Your task to perform on an android device: change the upload size in google photos Image 0: 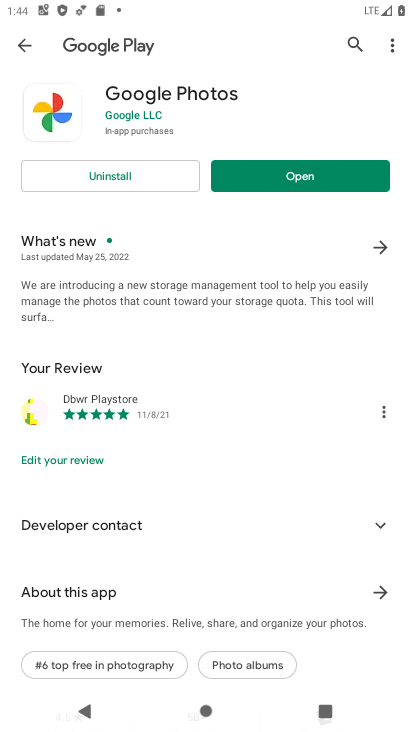
Step 0: press home button
Your task to perform on an android device: change the upload size in google photos Image 1: 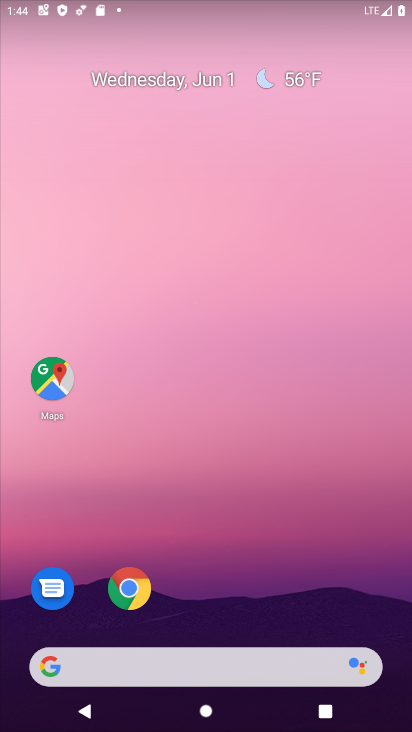
Step 1: drag from (320, 594) to (215, 33)
Your task to perform on an android device: change the upload size in google photos Image 2: 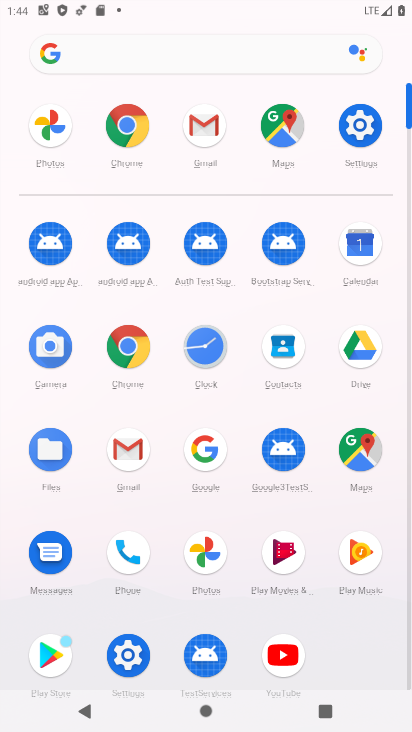
Step 2: click (361, 133)
Your task to perform on an android device: change the upload size in google photos Image 3: 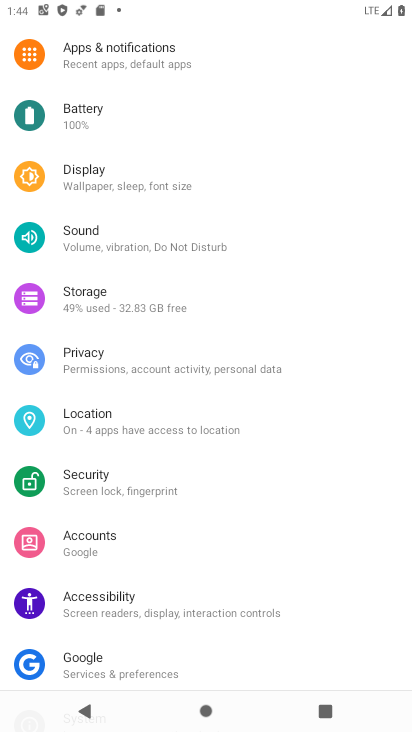
Step 3: press home button
Your task to perform on an android device: change the upload size in google photos Image 4: 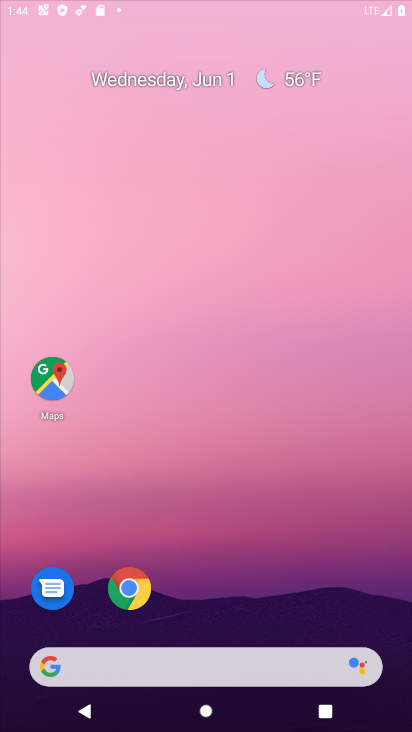
Step 4: drag from (315, 554) to (170, 25)
Your task to perform on an android device: change the upload size in google photos Image 5: 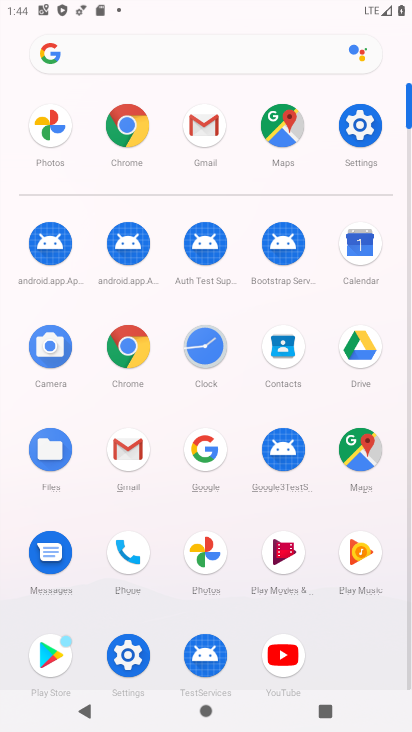
Step 5: click (207, 560)
Your task to perform on an android device: change the upload size in google photos Image 6: 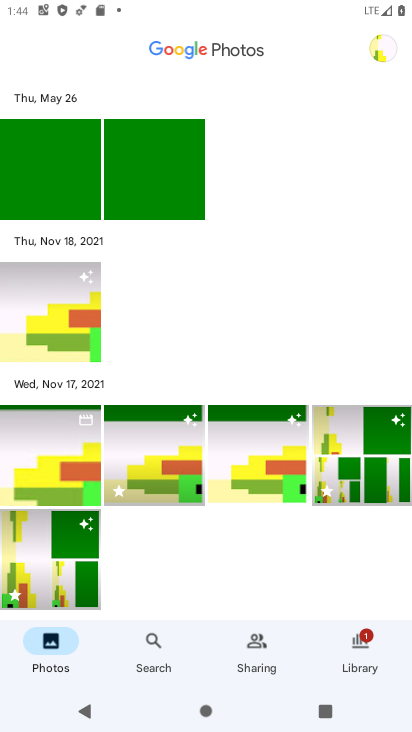
Step 6: click (386, 50)
Your task to perform on an android device: change the upload size in google photos Image 7: 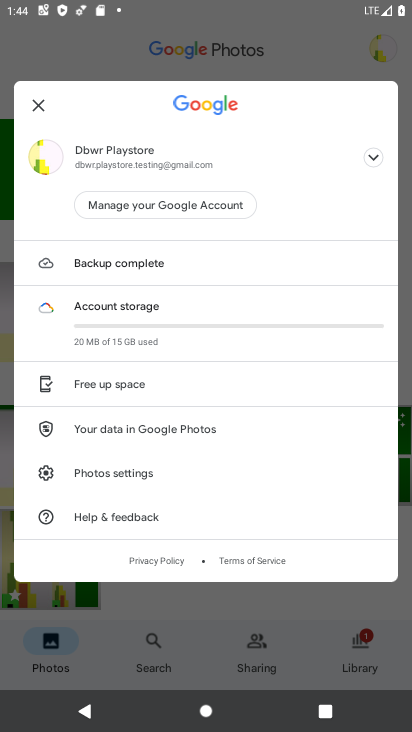
Step 7: click (148, 472)
Your task to perform on an android device: change the upload size in google photos Image 8: 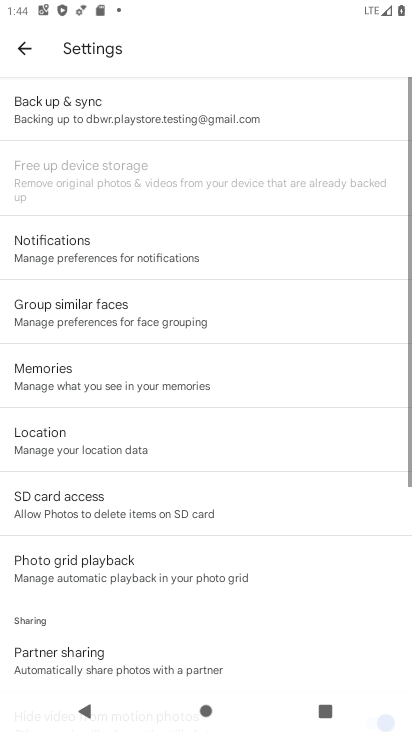
Step 8: click (119, 106)
Your task to perform on an android device: change the upload size in google photos Image 9: 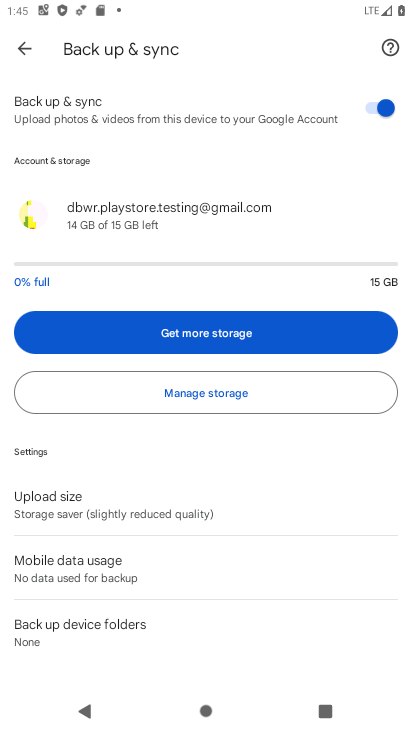
Step 9: click (158, 517)
Your task to perform on an android device: change the upload size in google photos Image 10: 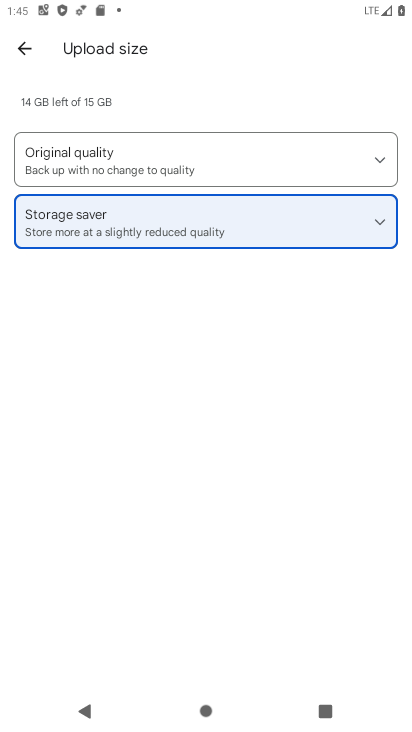
Step 10: click (189, 150)
Your task to perform on an android device: change the upload size in google photos Image 11: 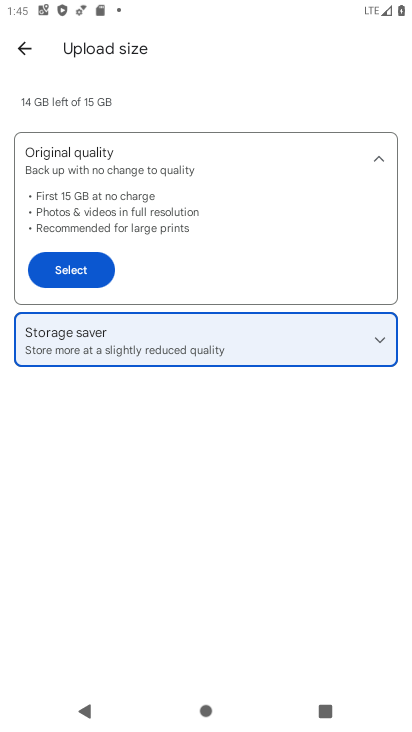
Step 11: click (96, 264)
Your task to perform on an android device: change the upload size in google photos Image 12: 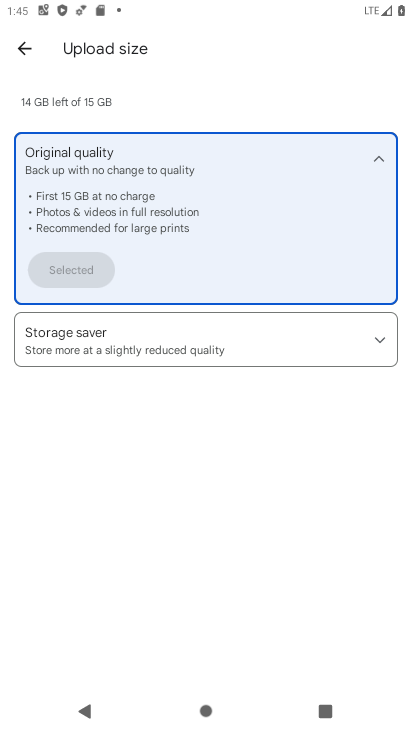
Step 12: task complete